Your task to perform on an android device: open the mobile data screen to see how much data has been used Image 0: 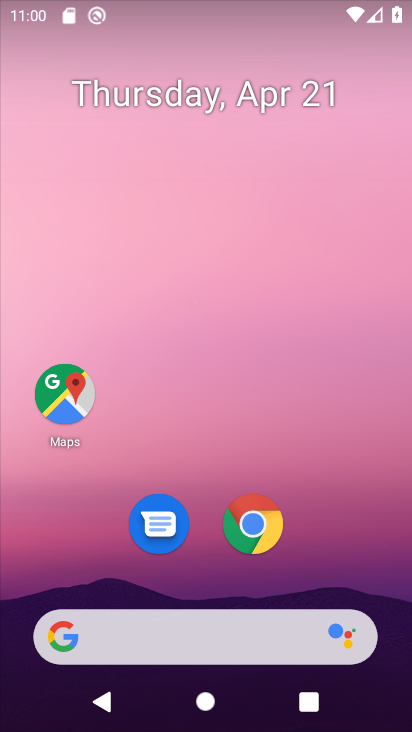
Step 0: drag from (325, 514) to (353, 53)
Your task to perform on an android device: open the mobile data screen to see how much data has been used Image 1: 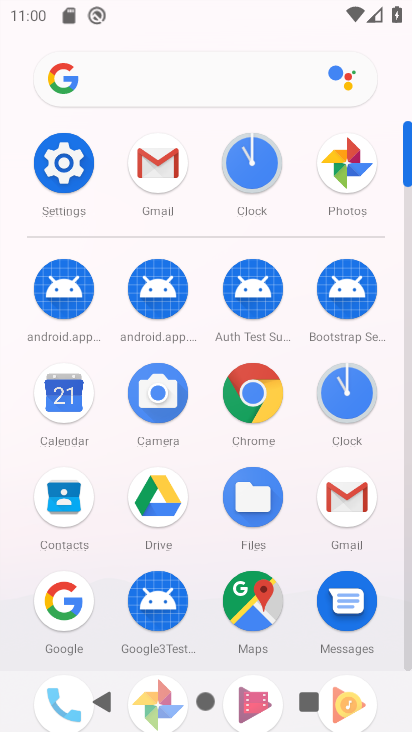
Step 1: click (72, 171)
Your task to perform on an android device: open the mobile data screen to see how much data has been used Image 2: 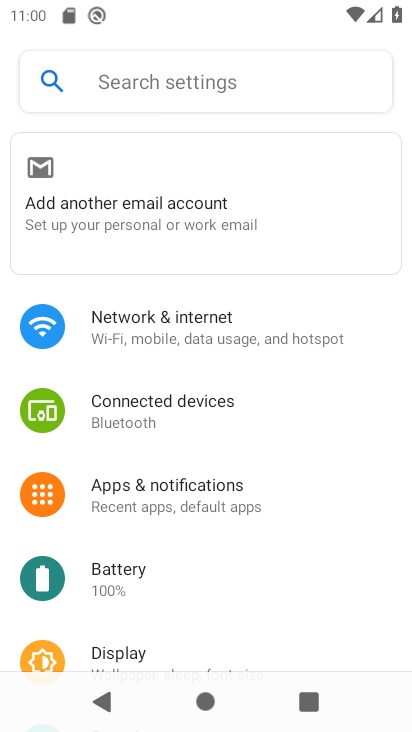
Step 2: click (205, 314)
Your task to perform on an android device: open the mobile data screen to see how much data has been used Image 3: 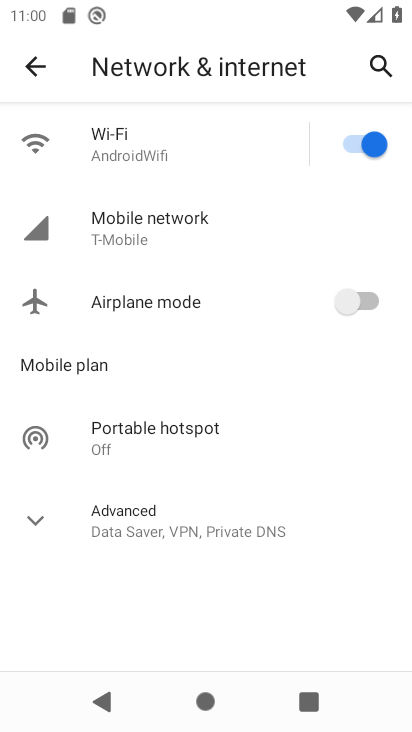
Step 3: click (237, 218)
Your task to perform on an android device: open the mobile data screen to see how much data has been used Image 4: 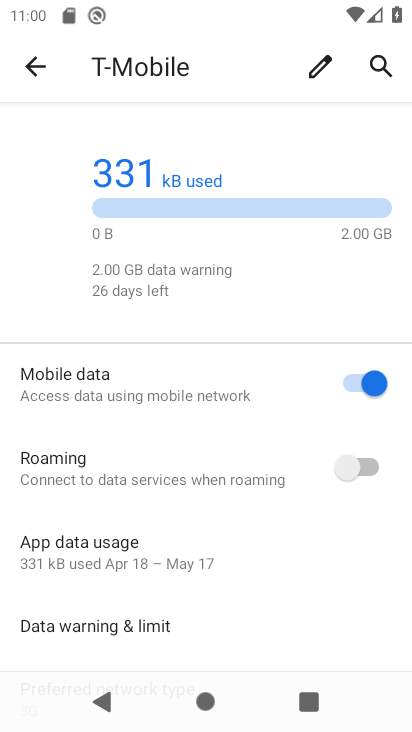
Step 4: task complete